Your task to perform on an android device: uninstall "Google News" Image 0: 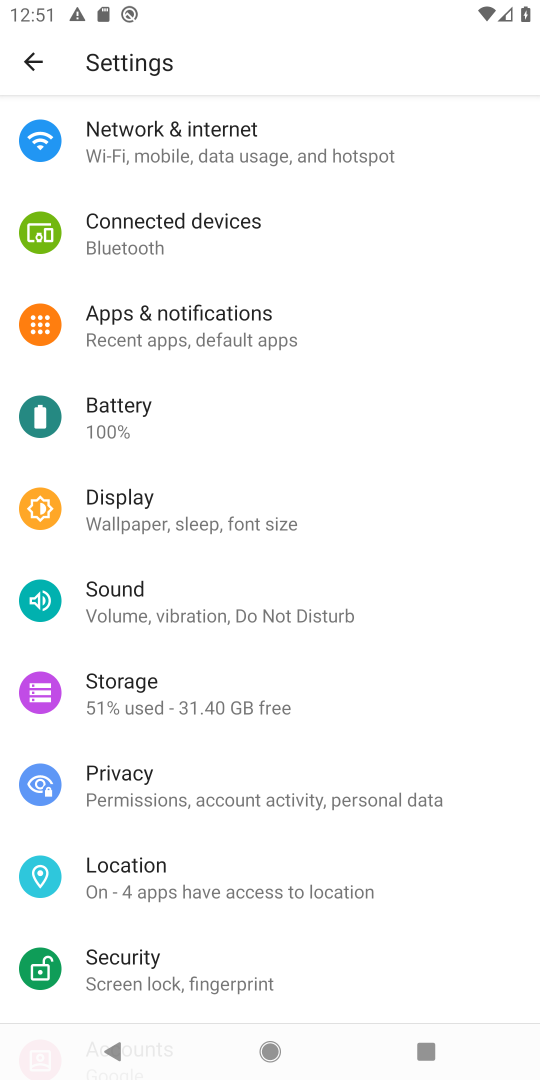
Step 0: press home button
Your task to perform on an android device: uninstall "Google News" Image 1: 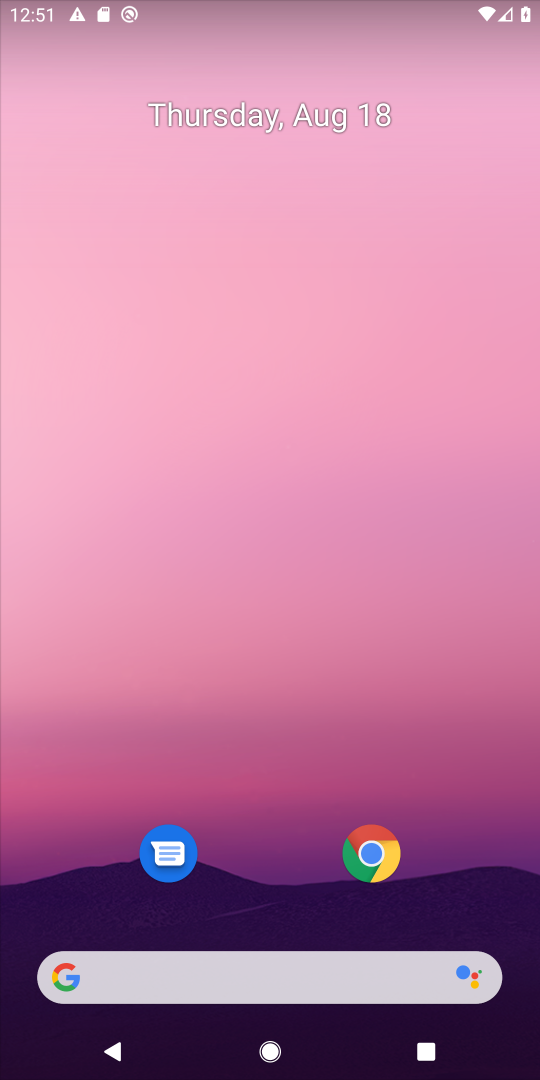
Step 1: drag from (272, 813) to (358, 231)
Your task to perform on an android device: uninstall "Google News" Image 2: 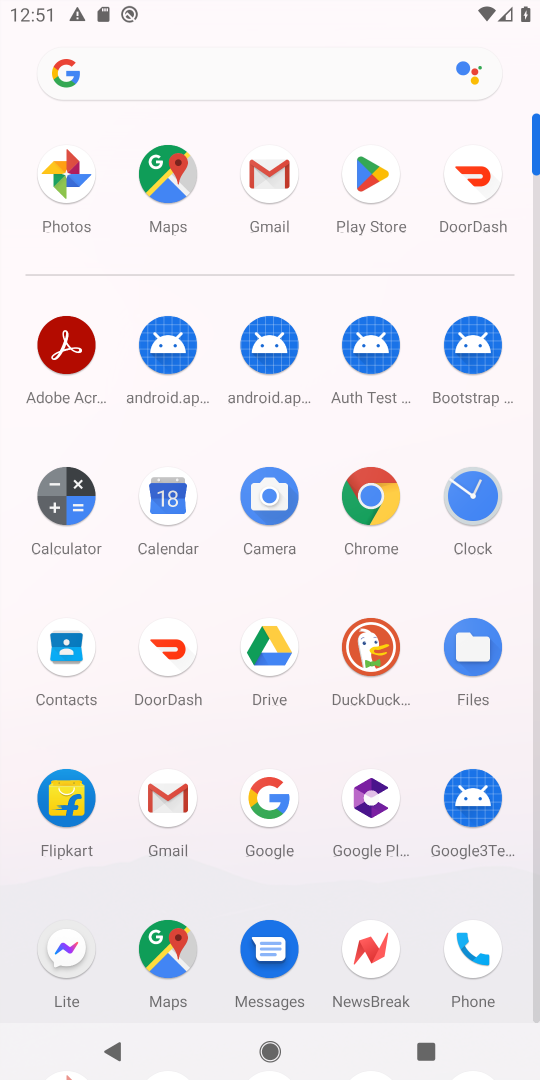
Step 2: drag from (370, 523) to (418, 191)
Your task to perform on an android device: uninstall "Google News" Image 3: 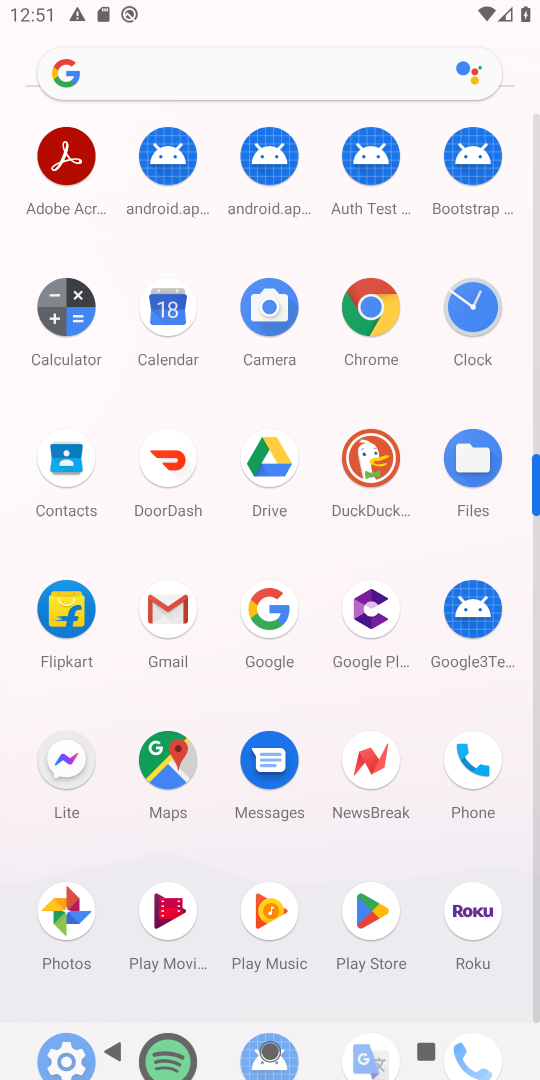
Step 3: click (352, 919)
Your task to perform on an android device: uninstall "Google News" Image 4: 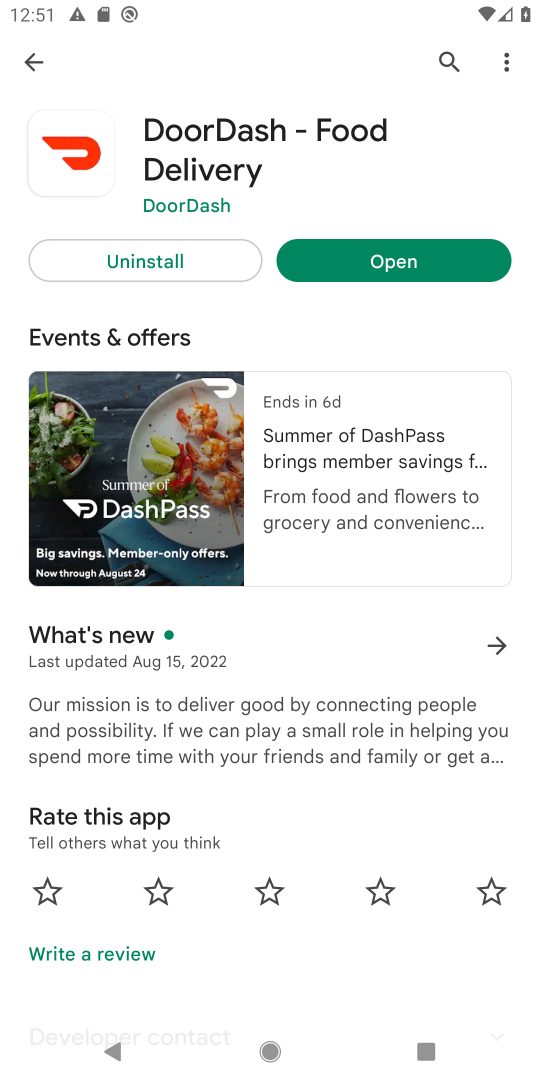
Step 4: click (54, 66)
Your task to perform on an android device: uninstall "Google News" Image 5: 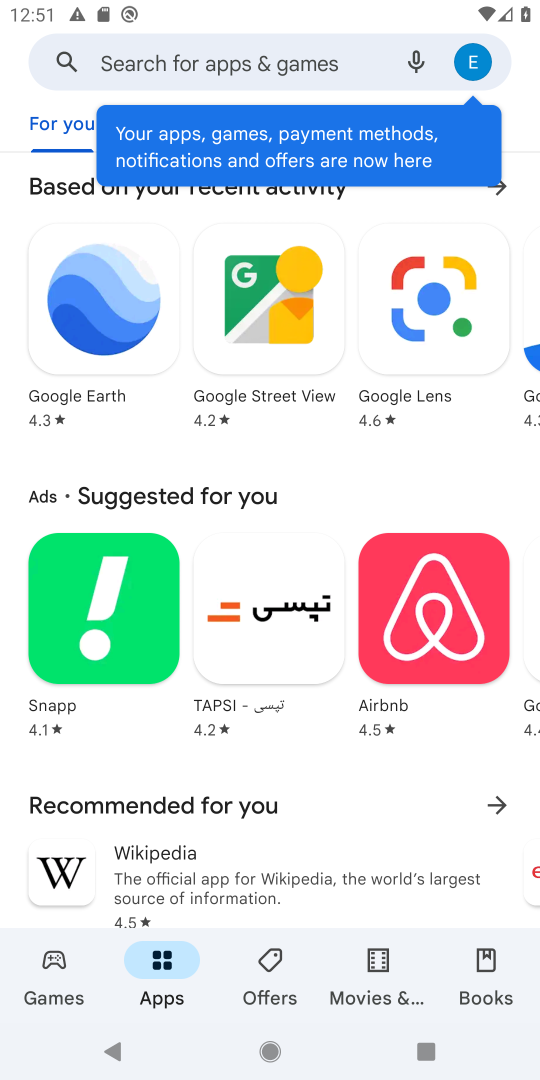
Step 5: task complete